Your task to perform on an android device: toggle location history Image 0: 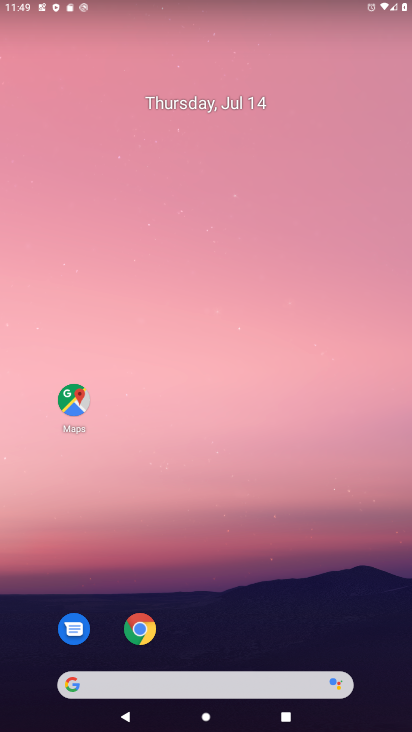
Step 0: press home button
Your task to perform on an android device: toggle location history Image 1: 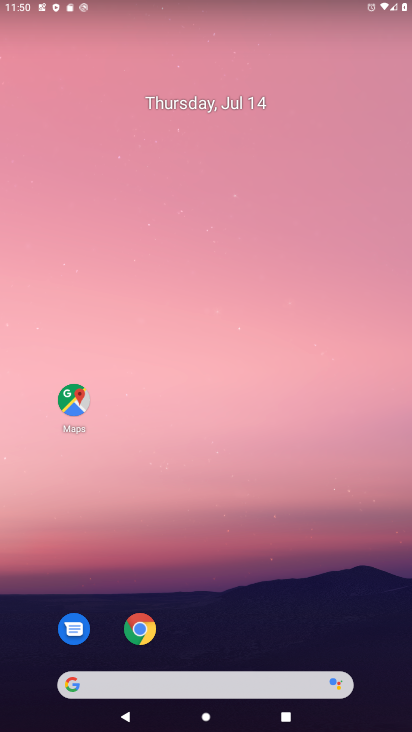
Step 1: drag from (227, 639) to (172, 6)
Your task to perform on an android device: toggle location history Image 2: 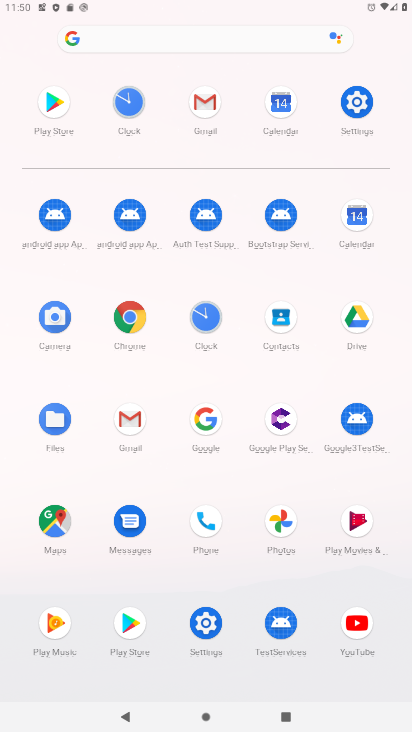
Step 2: click (357, 106)
Your task to perform on an android device: toggle location history Image 3: 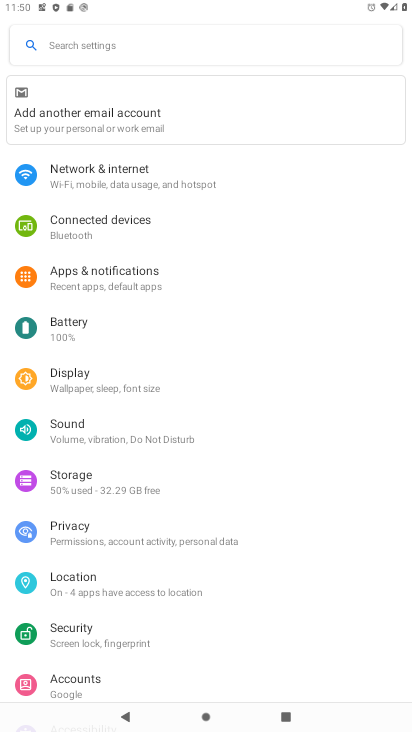
Step 3: click (78, 574)
Your task to perform on an android device: toggle location history Image 4: 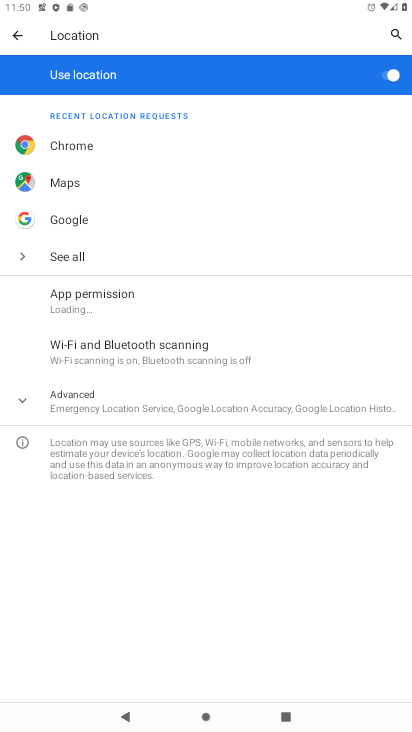
Step 4: click (73, 400)
Your task to perform on an android device: toggle location history Image 5: 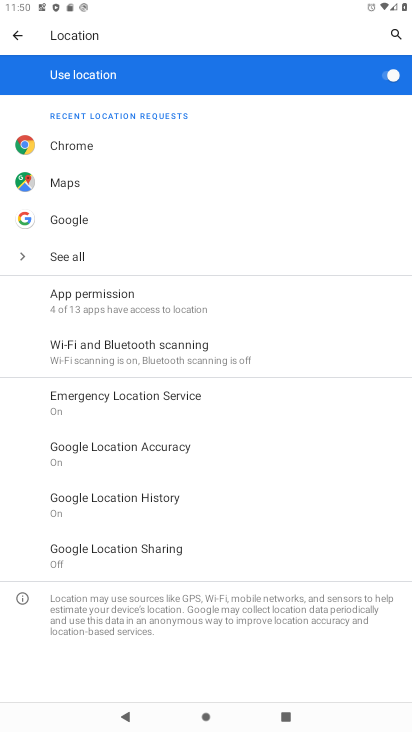
Step 5: click (124, 495)
Your task to perform on an android device: toggle location history Image 6: 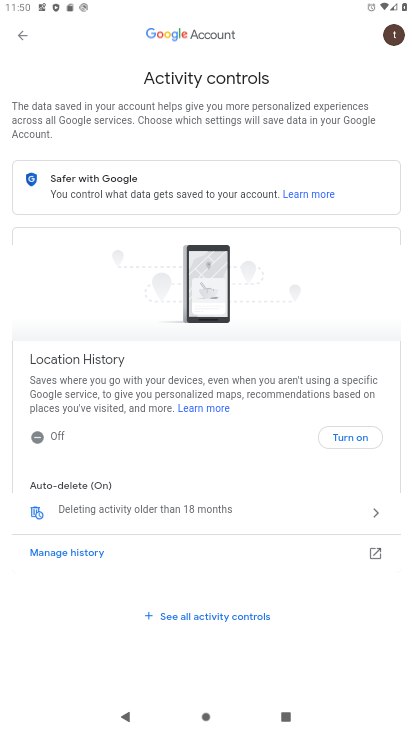
Step 6: click (347, 435)
Your task to perform on an android device: toggle location history Image 7: 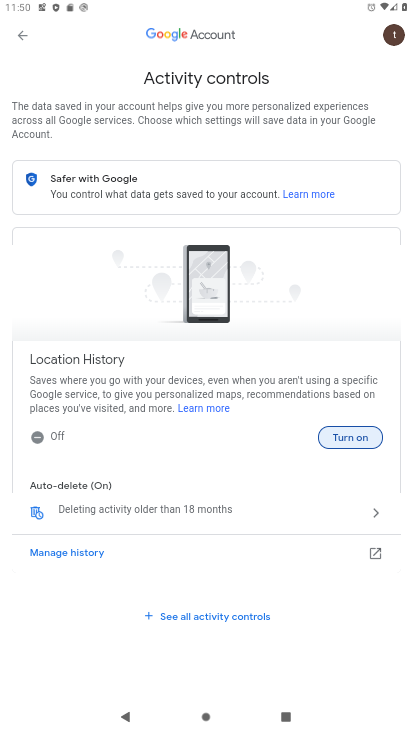
Step 7: click (344, 432)
Your task to perform on an android device: toggle location history Image 8: 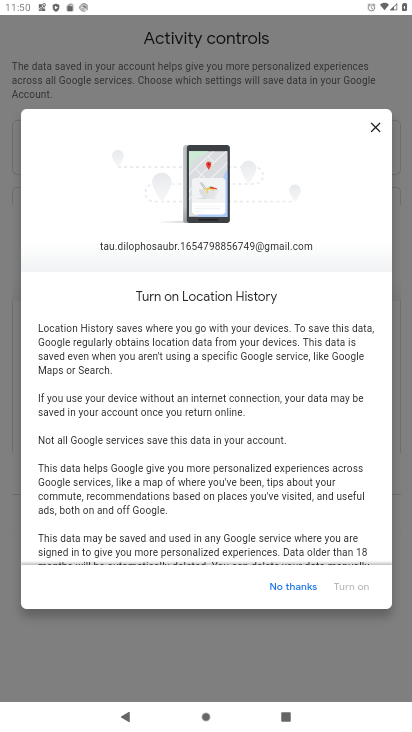
Step 8: drag from (339, 501) to (349, 173)
Your task to perform on an android device: toggle location history Image 9: 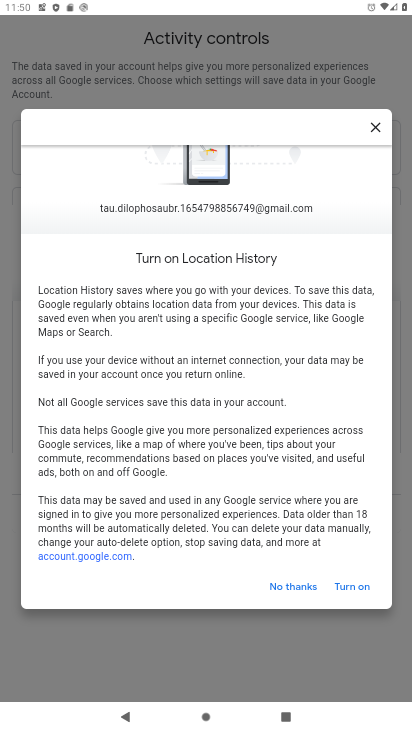
Step 9: click (344, 583)
Your task to perform on an android device: toggle location history Image 10: 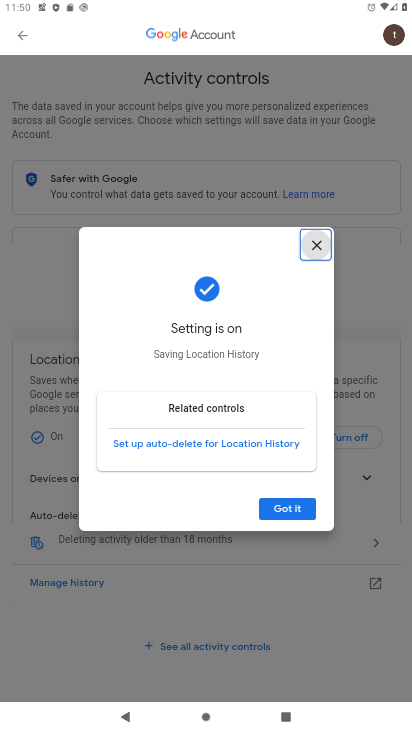
Step 10: click (282, 510)
Your task to perform on an android device: toggle location history Image 11: 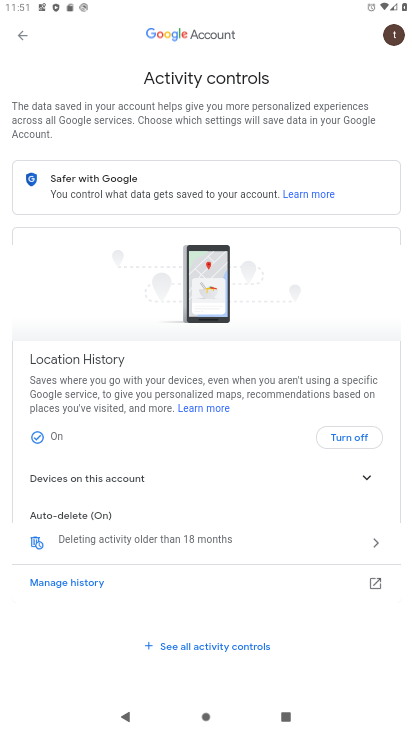
Step 11: task complete